Your task to perform on an android device: turn off picture-in-picture Image 0: 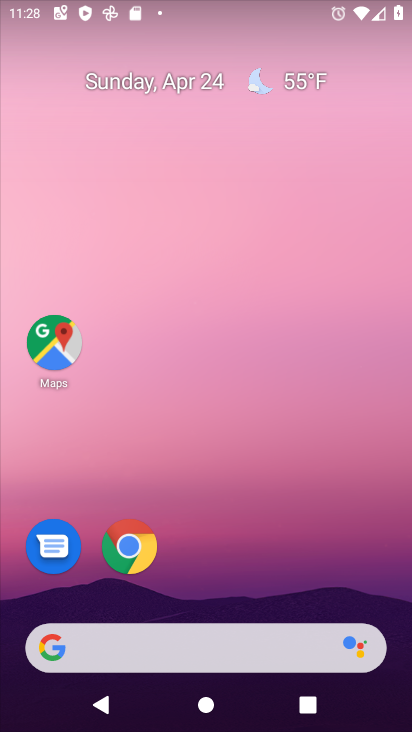
Step 0: click (127, 551)
Your task to perform on an android device: turn off picture-in-picture Image 1: 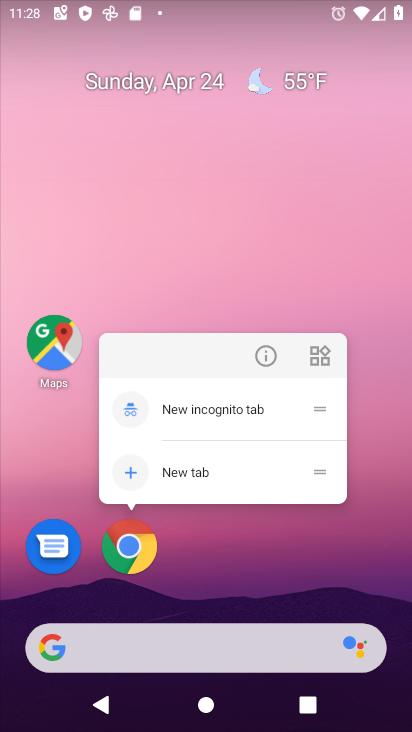
Step 1: click (262, 352)
Your task to perform on an android device: turn off picture-in-picture Image 2: 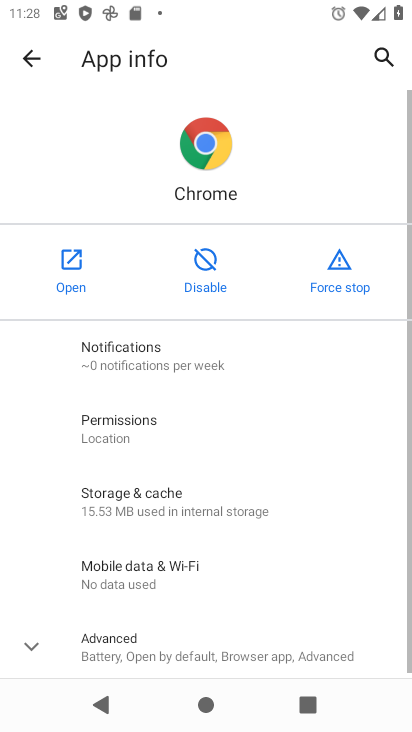
Step 2: drag from (221, 471) to (232, 337)
Your task to perform on an android device: turn off picture-in-picture Image 3: 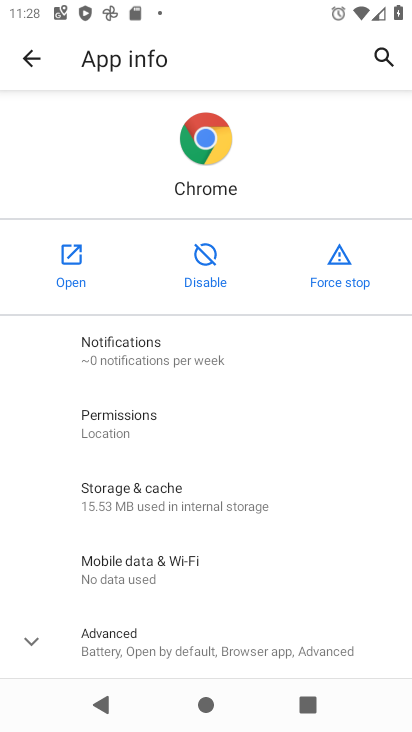
Step 3: drag from (237, 570) to (285, 368)
Your task to perform on an android device: turn off picture-in-picture Image 4: 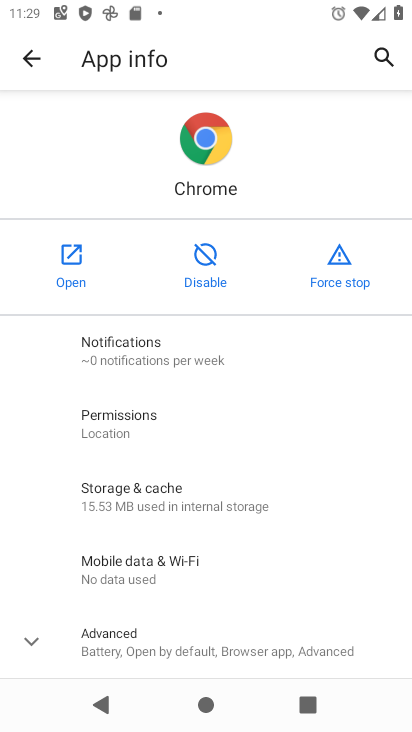
Step 4: click (200, 645)
Your task to perform on an android device: turn off picture-in-picture Image 5: 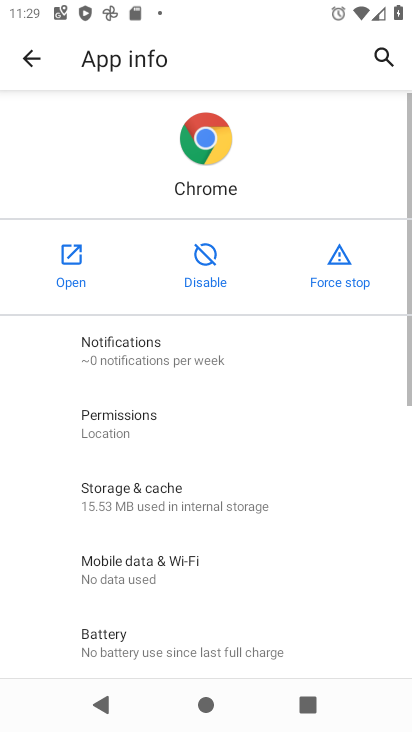
Step 5: drag from (181, 626) to (235, 426)
Your task to perform on an android device: turn off picture-in-picture Image 6: 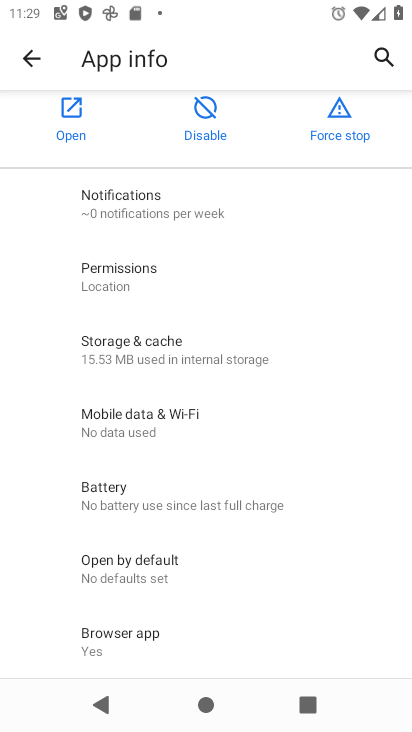
Step 6: drag from (210, 545) to (267, 419)
Your task to perform on an android device: turn off picture-in-picture Image 7: 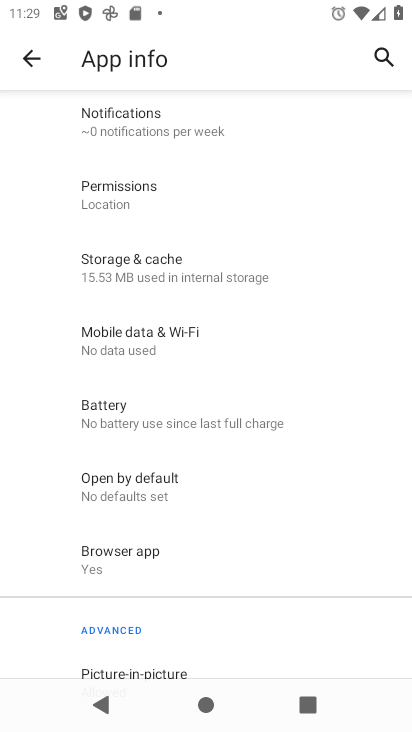
Step 7: drag from (214, 562) to (253, 465)
Your task to perform on an android device: turn off picture-in-picture Image 8: 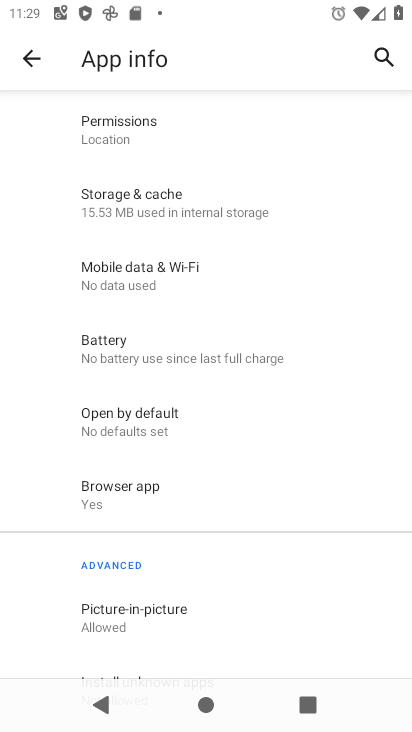
Step 8: click (171, 615)
Your task to perform on an android device: turn off picture-in-picture Image 9: 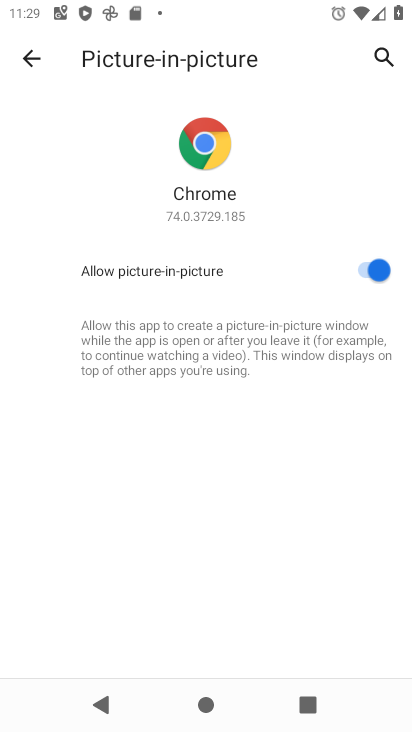
Step 9: click (377, 270)
Your task to perform on an android device: turn off picture-in-picture Image 10: 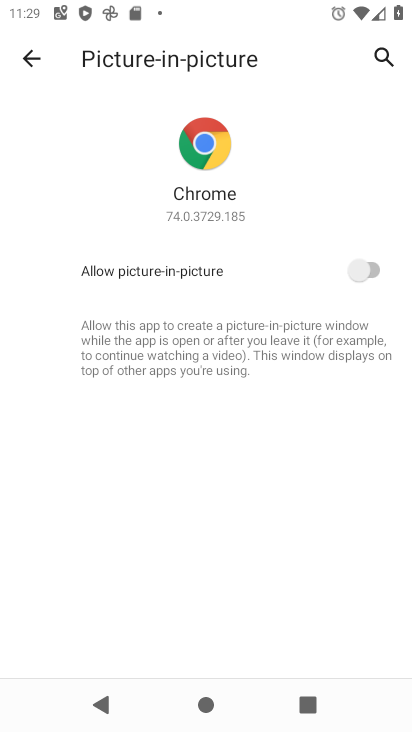
Step 10: task complete